Your task to perform on an android device: Go to Amazon Image 0: 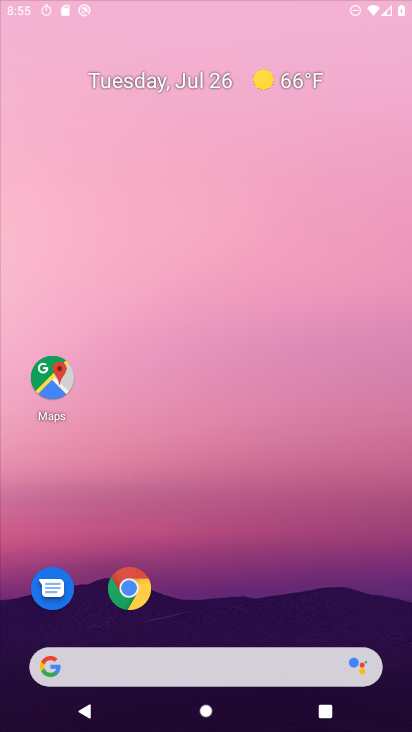
Step 0: drag from (238, 628) to (238, 154)
Your task to perform on an android device: Go to Amazon Image 1: 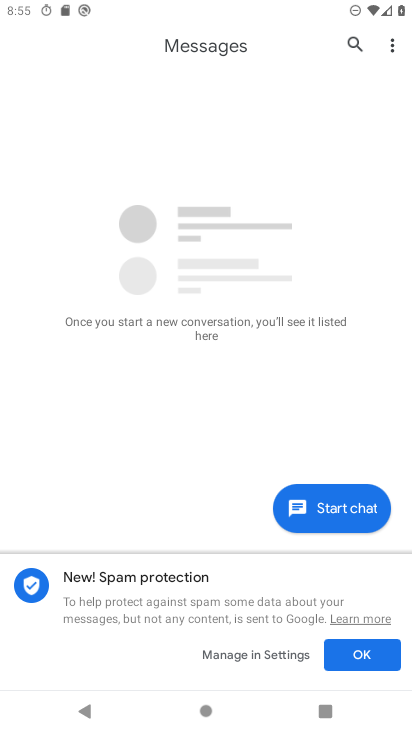
Step 1: press home button
Your task to perform on an android device: Go to Amazon Image 2: 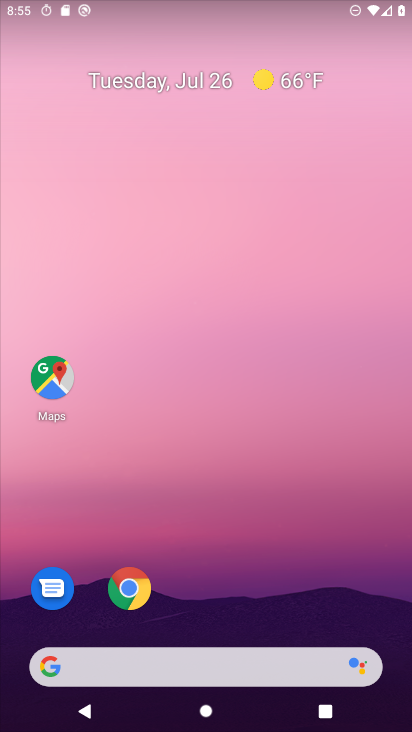
Step 2: drag from (240, 725) to (256, 211)
Your task to perform on an android device: Go to Amazon Image 3: 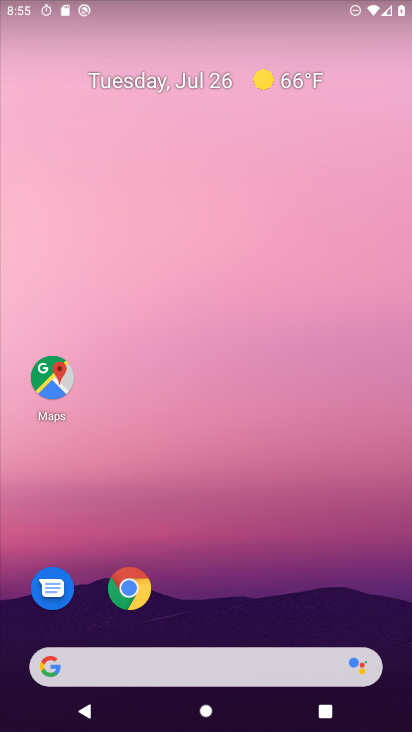
Step 3: click (137, 588)
Your task to perform on an android device: Go to Amazon Image 4: 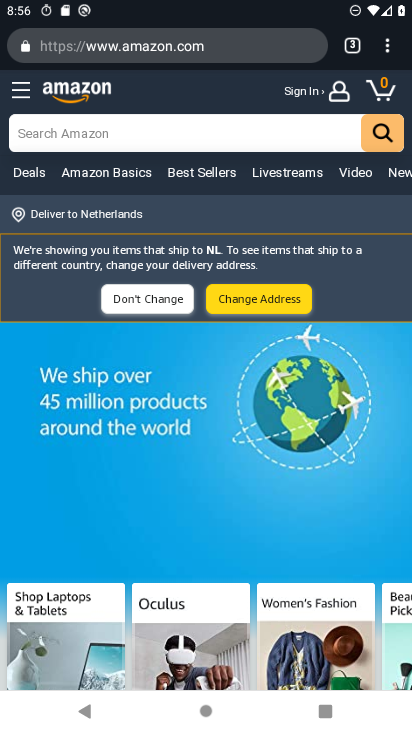
Step 4: task complete